Your task to perform on an android device: delete the emails in spam in the gmail app Image 0: 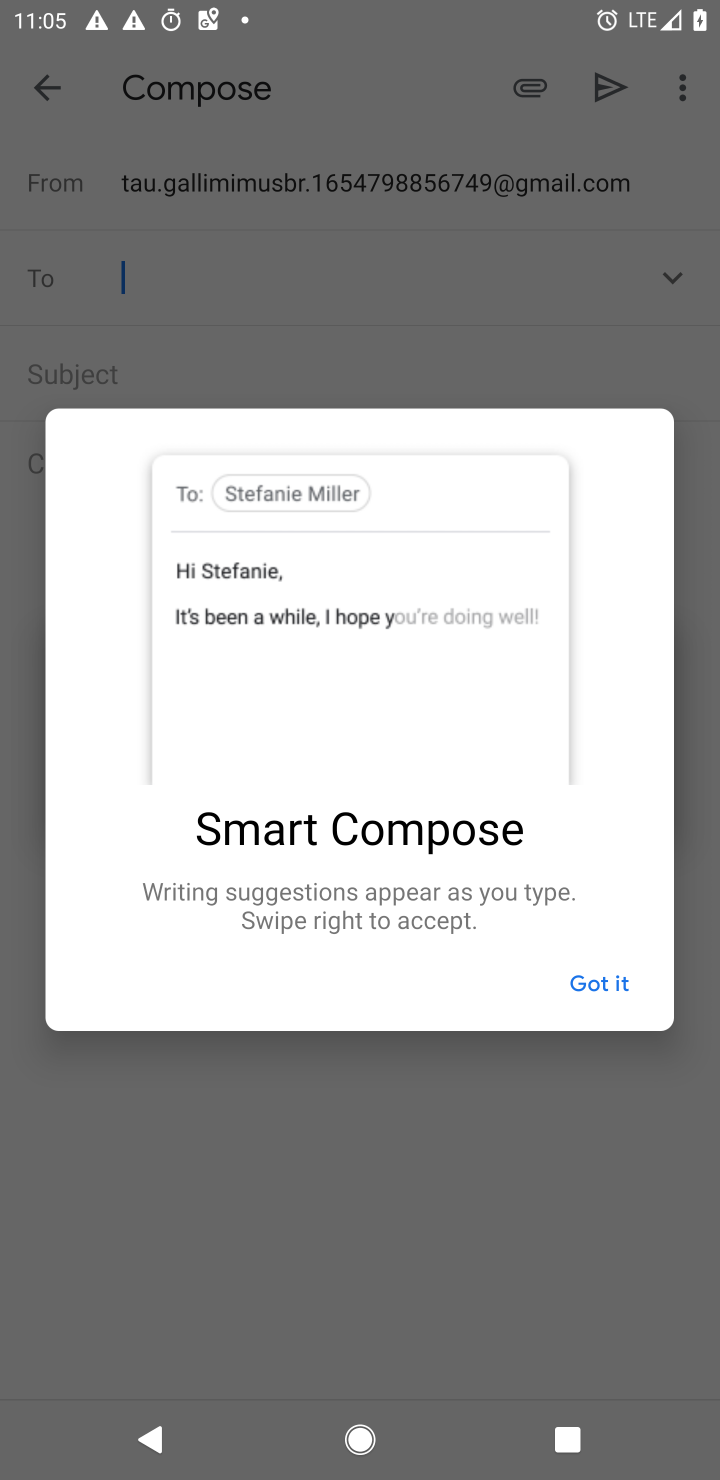
Step 0: press back button
Your task to perform on an android device: delete the emails in spam in the gmail app Image 1: 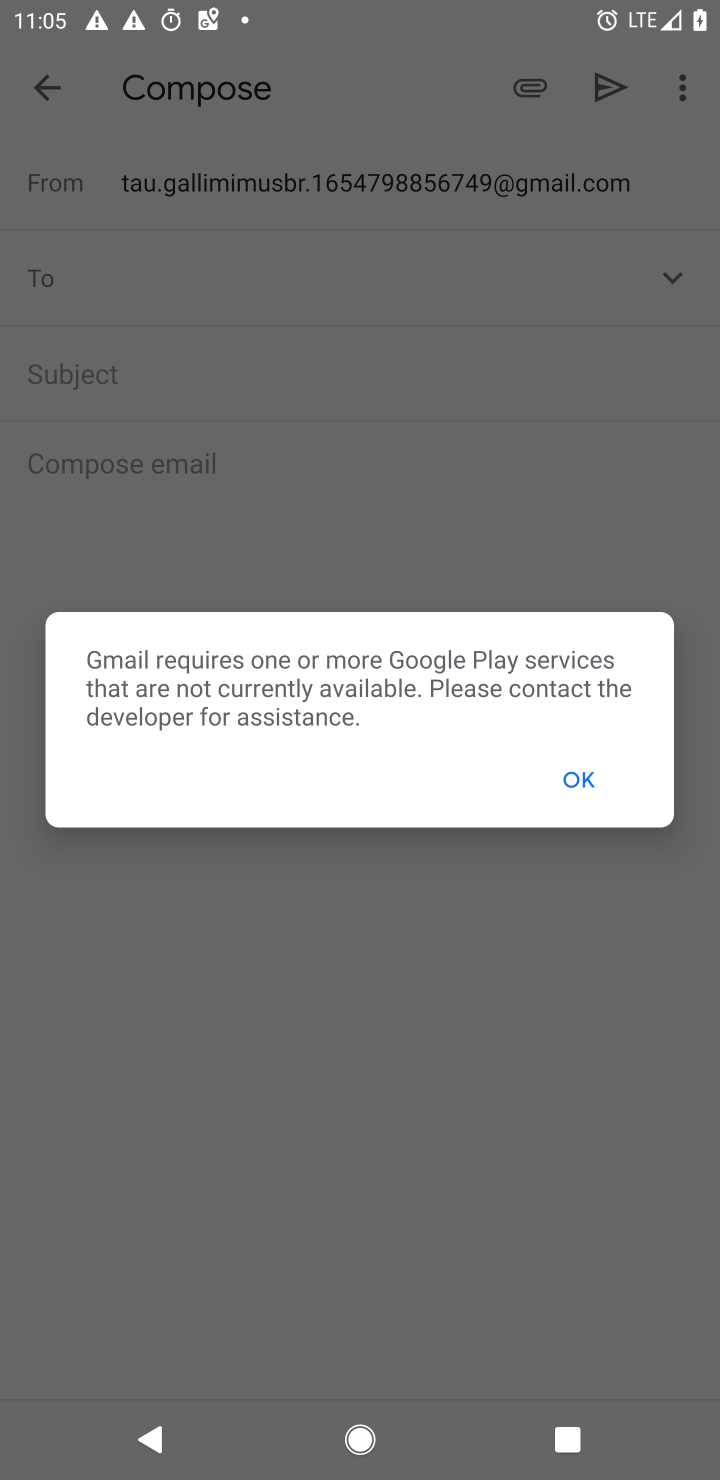
Step 1: press back button
Your task to perform on an android device: delete the emails in spam in the gmail app Image 2: 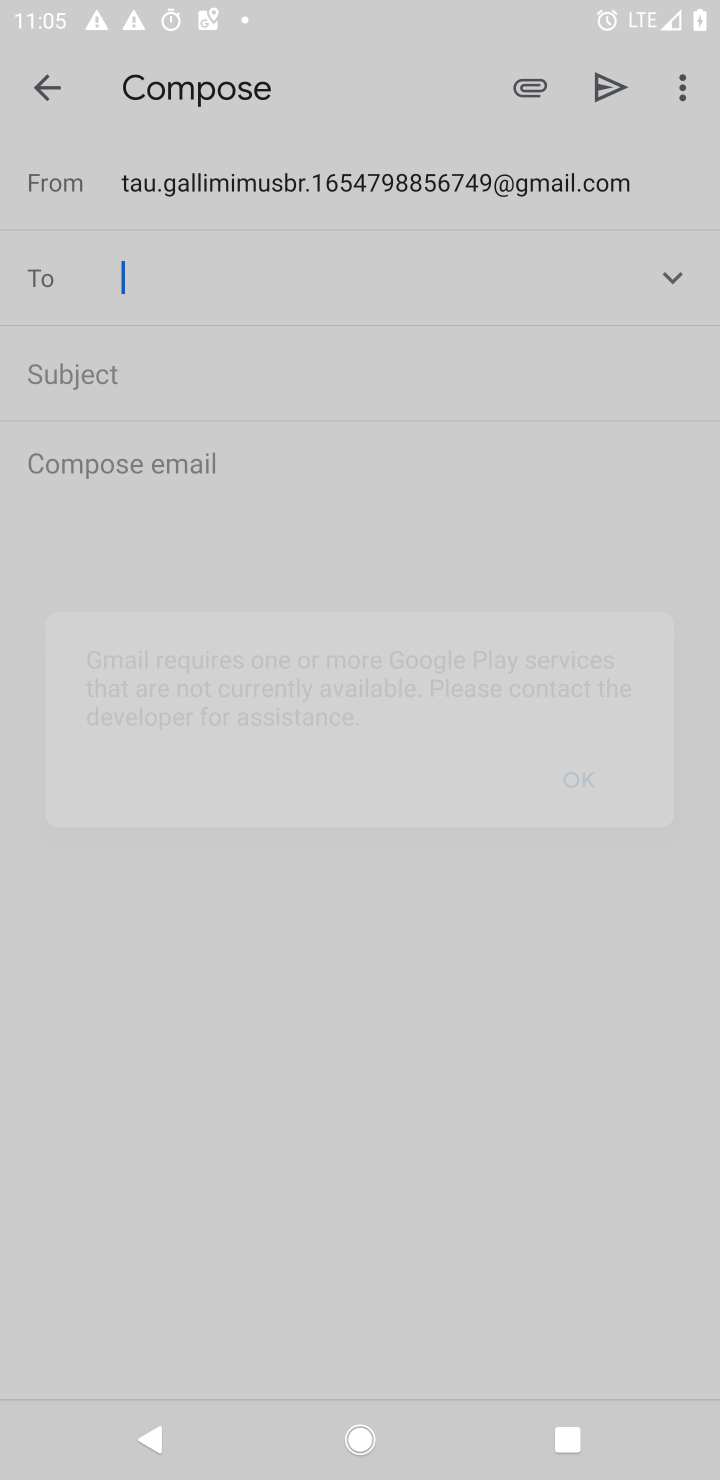
Step 2: press back button
Your task to perform on an android device: delete the emails in spam in the gmail app Image 3: 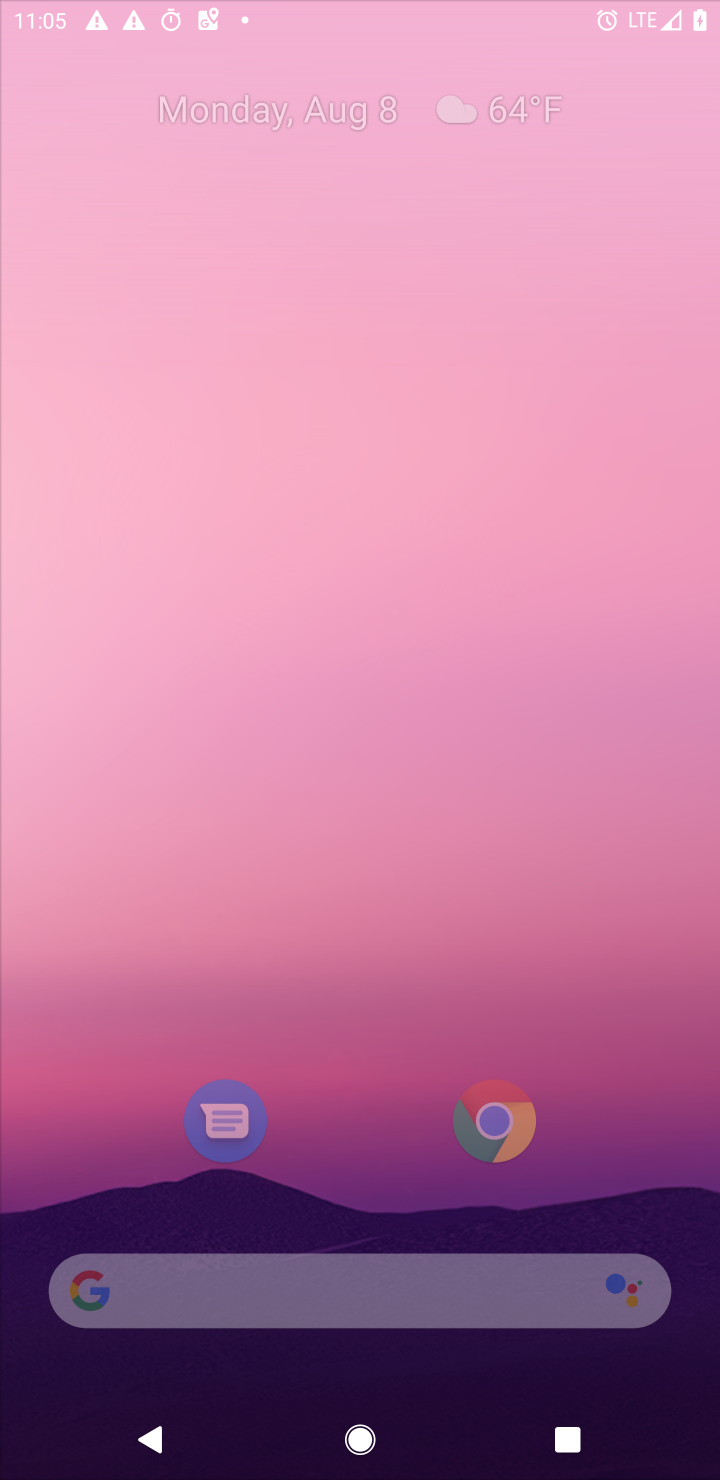
Step 3: press back button
Your task to perform on an android device: delete the emails in spam in the gmail app Image 4: 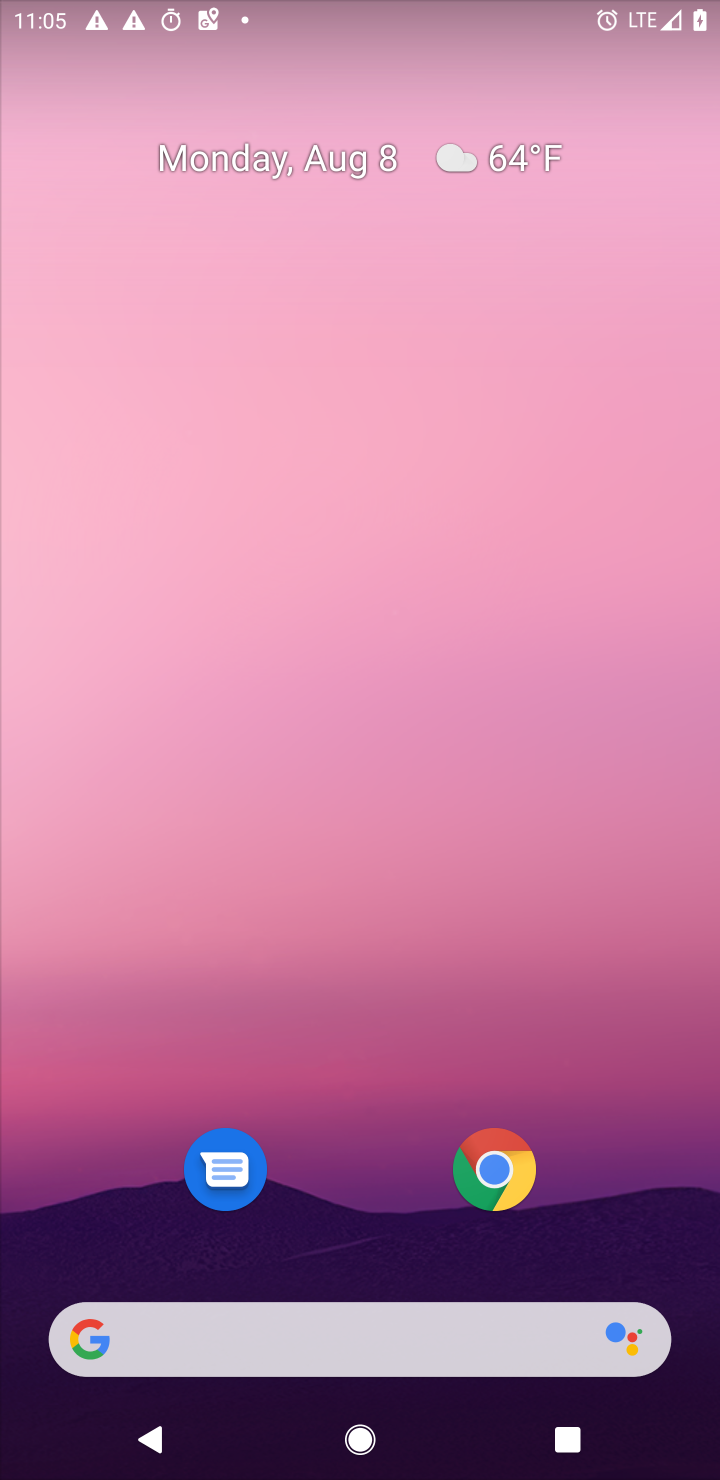
Step 4: drag from (379, 697) to (474, 28)
Your task to perform on an android device: delete the emails in spam in the gmail app Image 5: 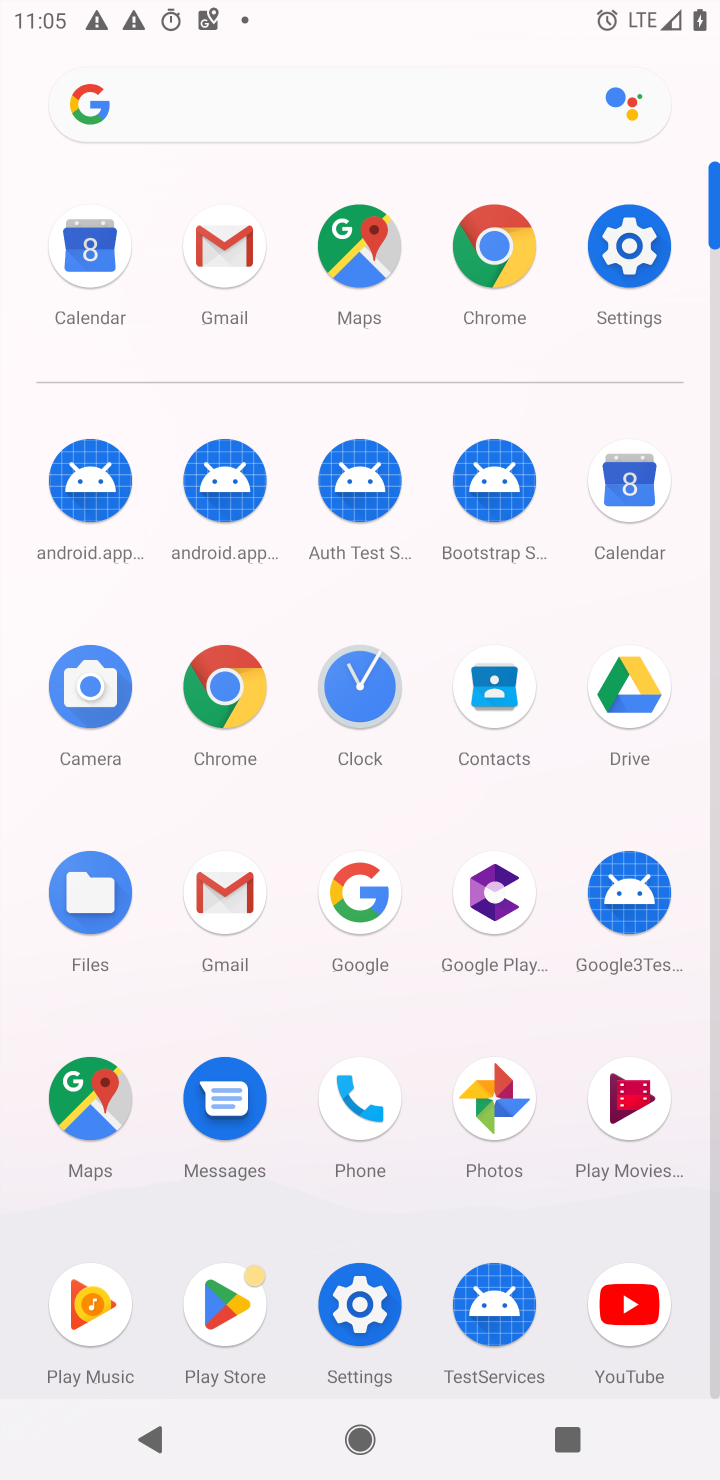
Step 5: click (225, 244)
Your task to perform on an android device: delete the emails in spam in the gmail app Image 6: 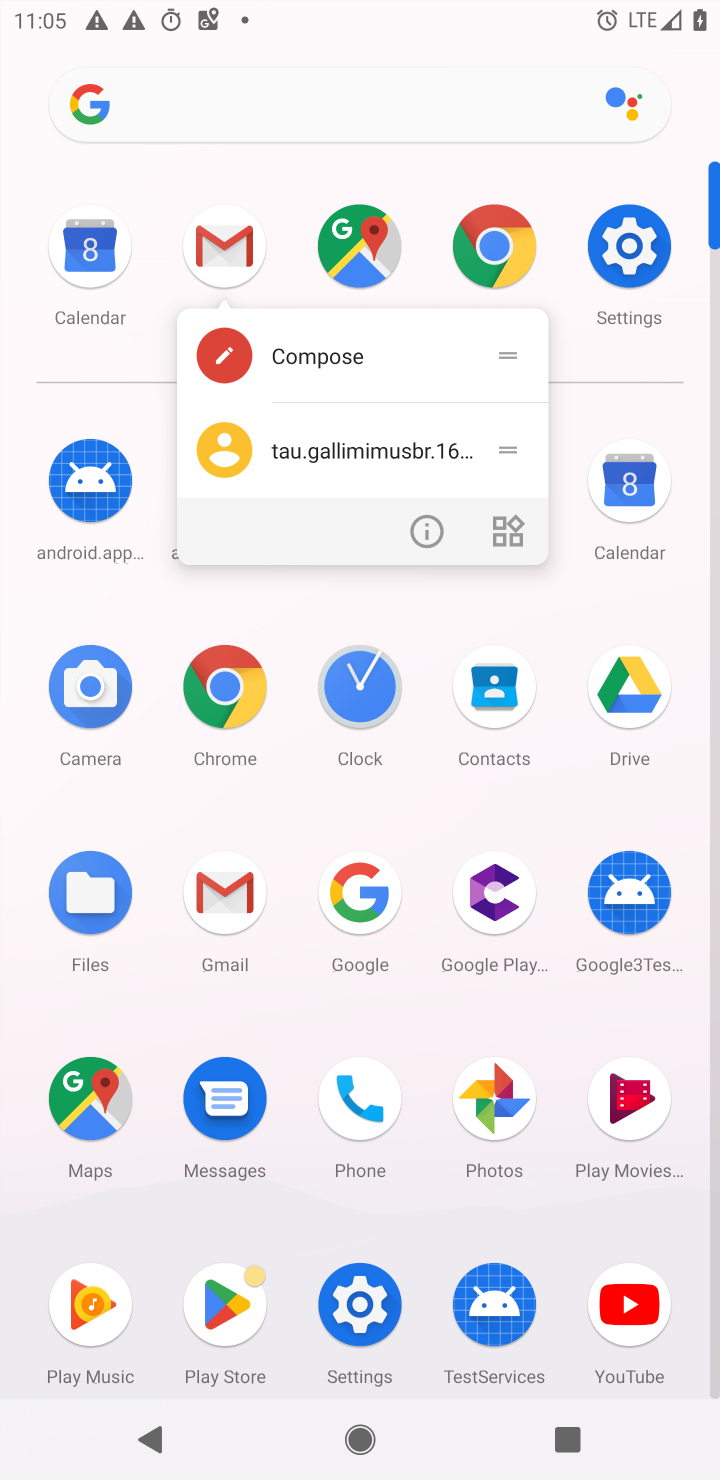
Step 6: click (222, 244)
Your task to perform on an android device: delete the emails in spam in the gmail app Image 7: 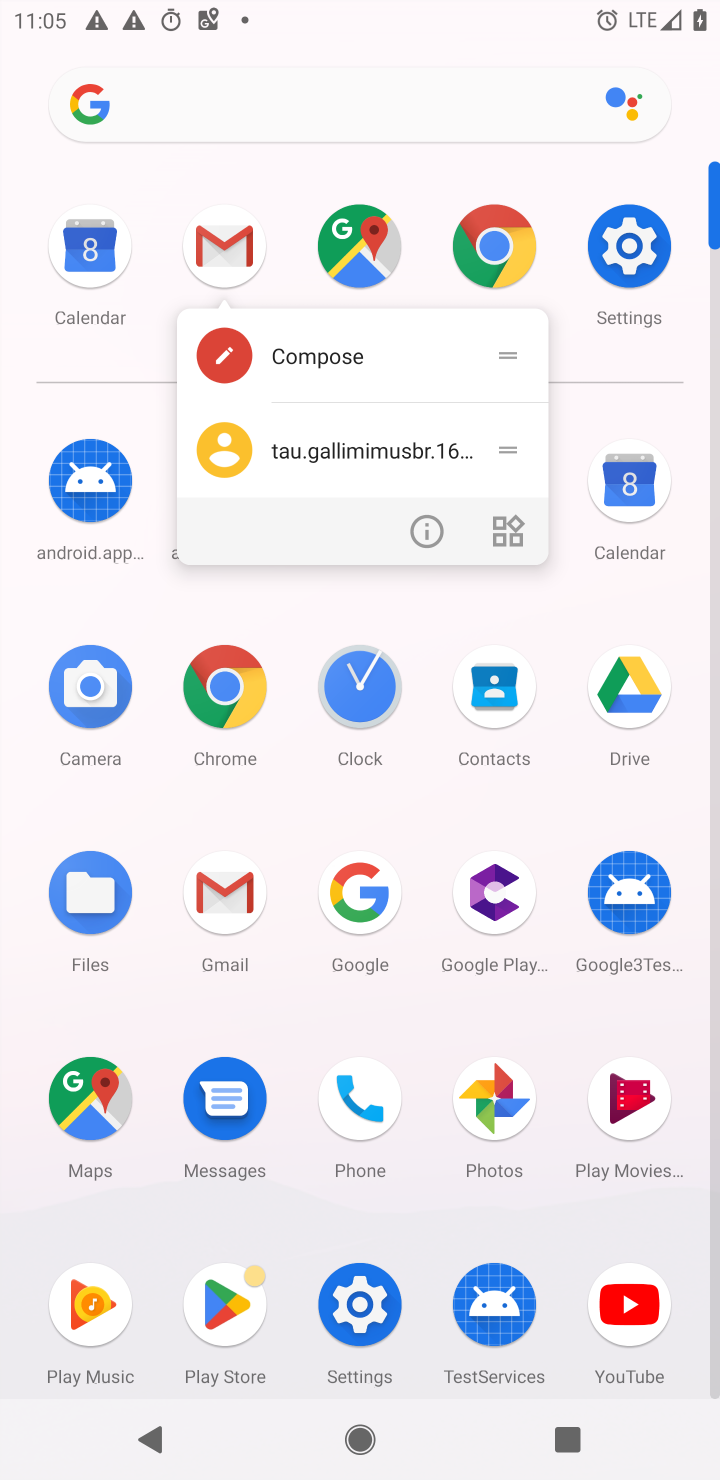
Step 7: click (222, 244)
Your task to perform on an android device: delete the emails in spam in the gmail app Image 8: 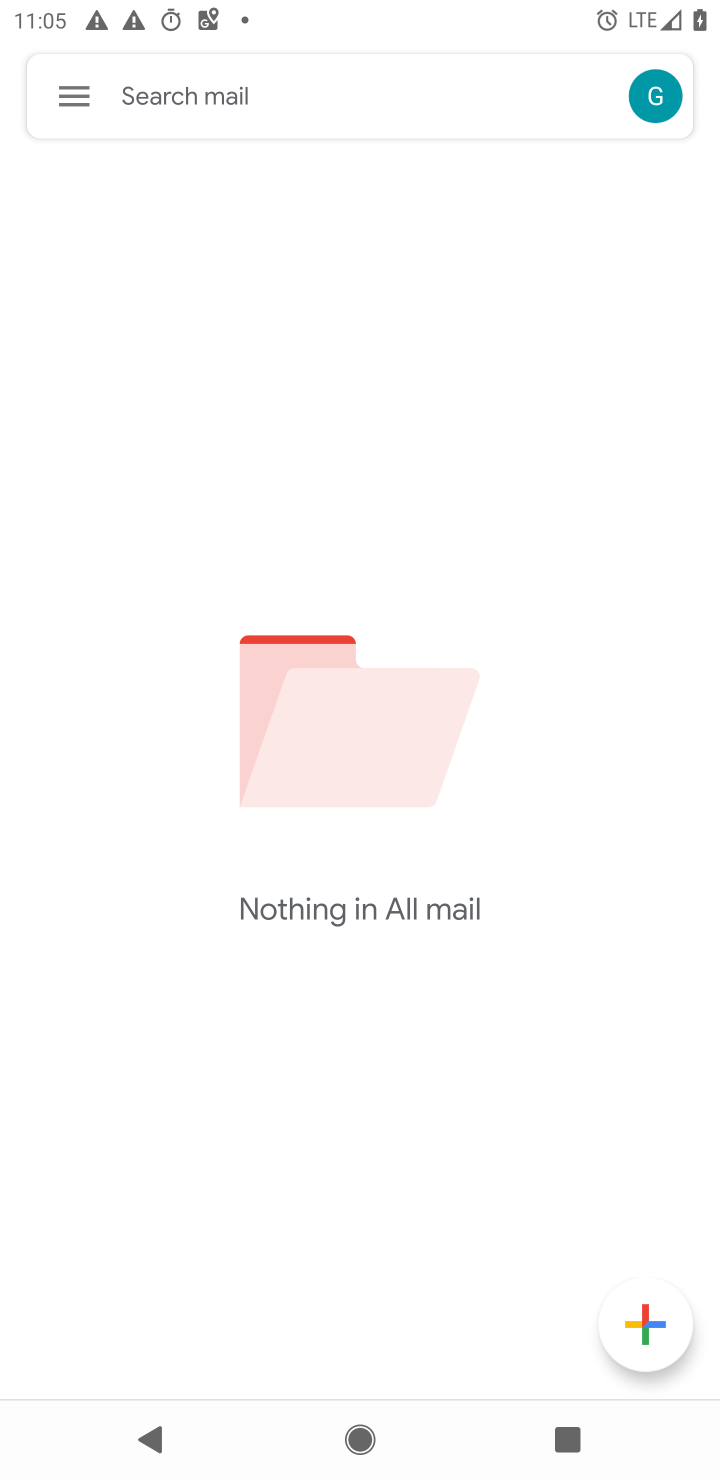
Step 8: click (62, 86)
Your task to perform on an android device: delete the emails in spam in the gmail app Image 9: 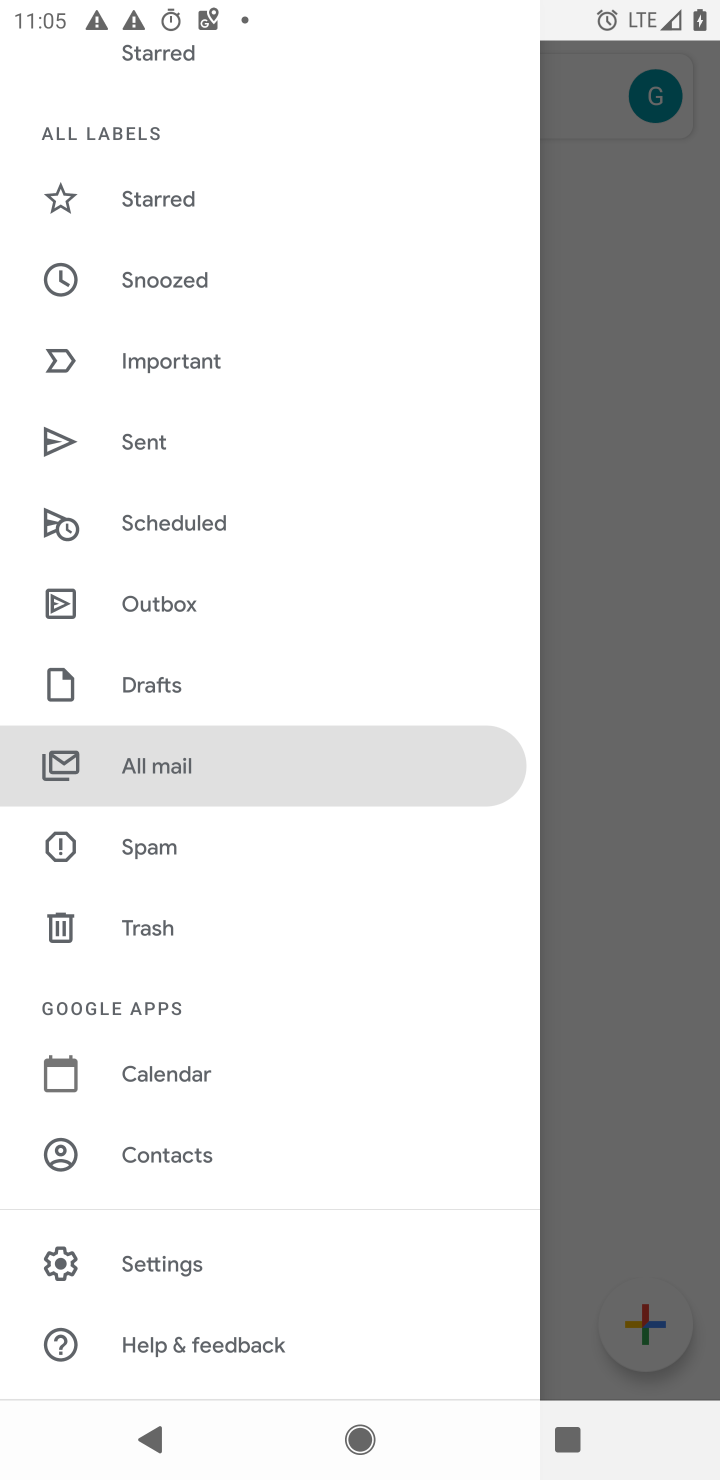
Step 9: click (191, 832)
Your task to perform on an android device: delete the emails in spam in the gmail app Image 10: 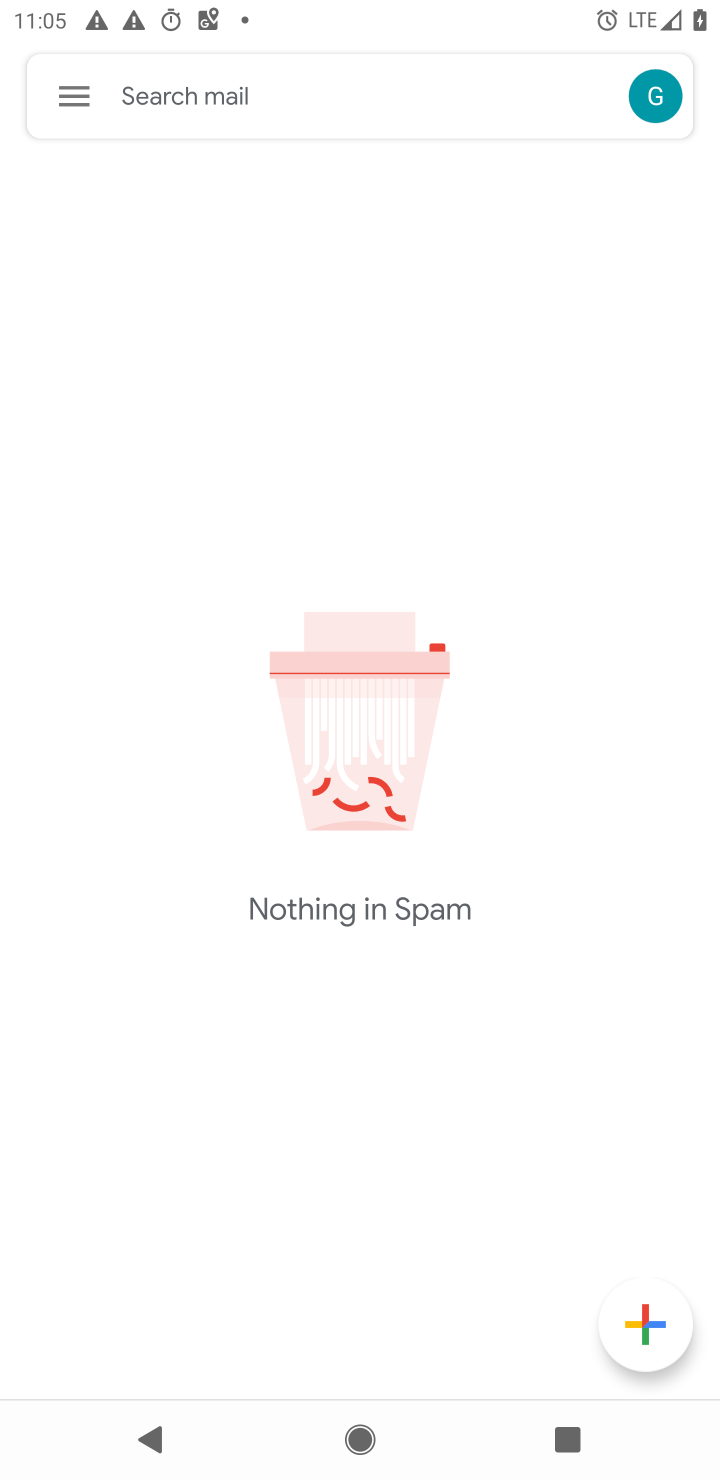
Step 10: task complete